Your task to perform on an android device: Open Google Chrome and open the bookmarks view Image 0: 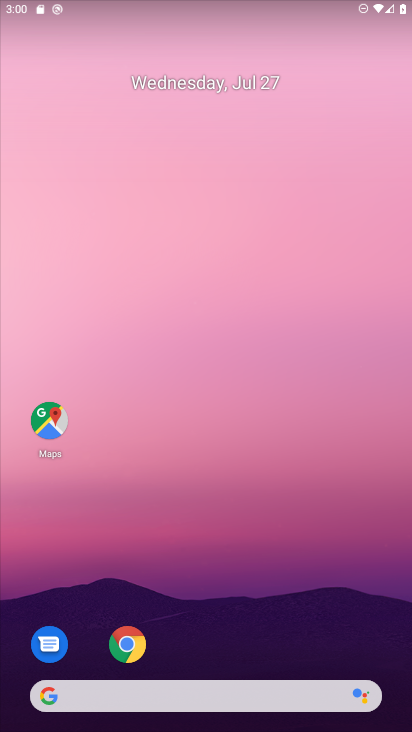
Step 0: click (130, 642)
Your task to perform on an android device: Open Google Chrome and open the bookmarks view Image 1: 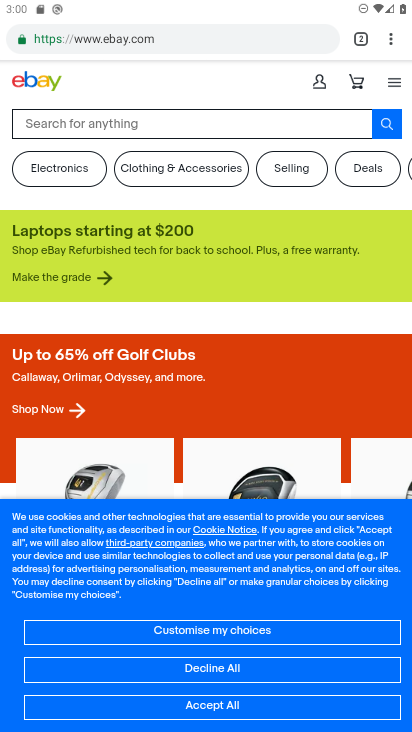
Step 1: click (390, 40)
Your task to perform on an android device: Open Google Chrome and open the bookmarks view Image 2: 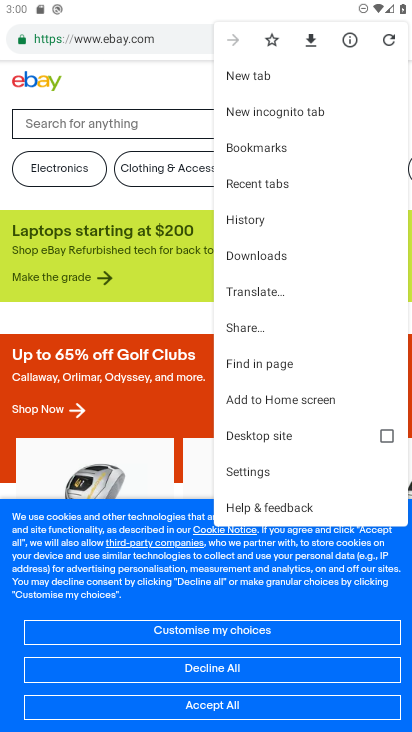
Step 2: click (272, 148)
Your task to perform on an android device: Open Google Chrome and open the bookmarks view Image 3: 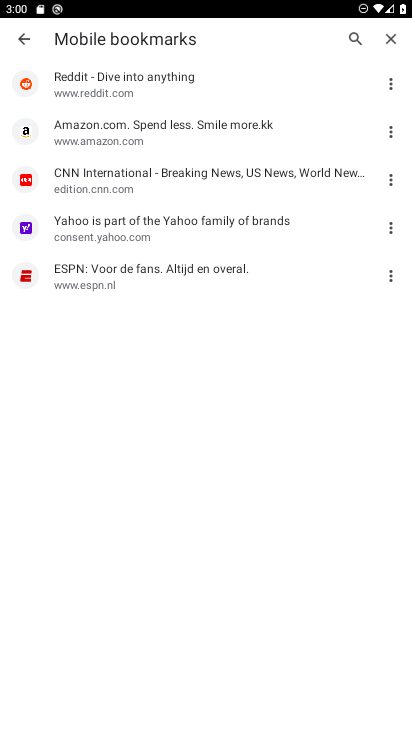
Step 3: task complete